Your task to perform on an android device: open chrome and create a bookmark for the current page Image 0: 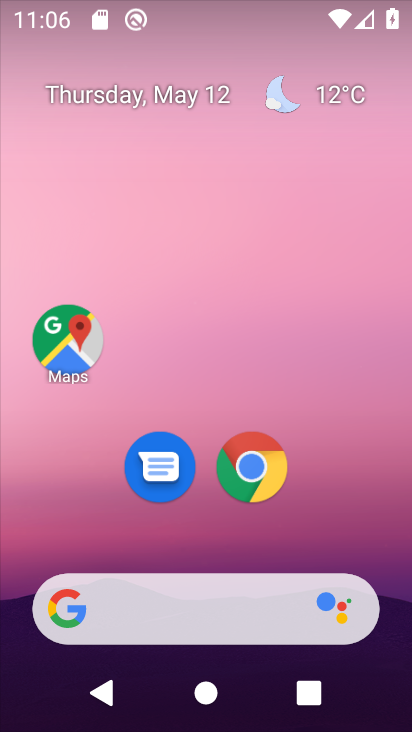
Step 0: click (257, 466)
Your task to perform on an android device: open chrome and create a bookmark for the current page Image 1: 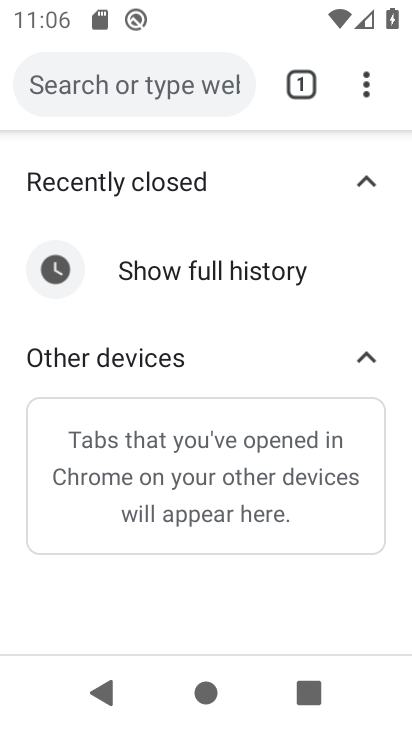
Step 1: click (356, 88)
Your task to perform on an android device: open chrome and create a bookmark for the current page Image 2: 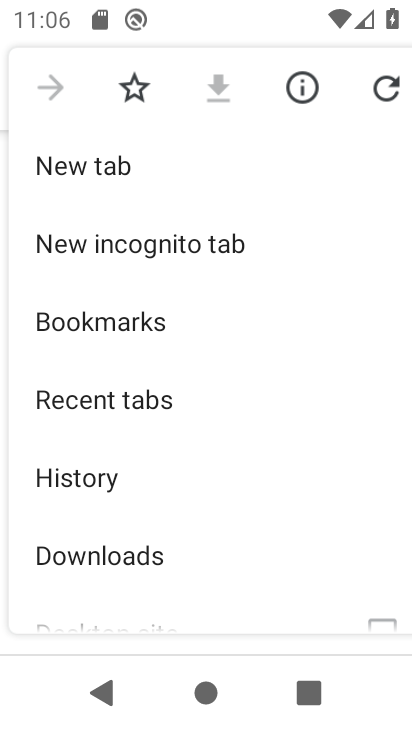
Step 2: click (135, 91)
Your task to perform on an android device: open chrome and create a bookmark for the current page Image 3: 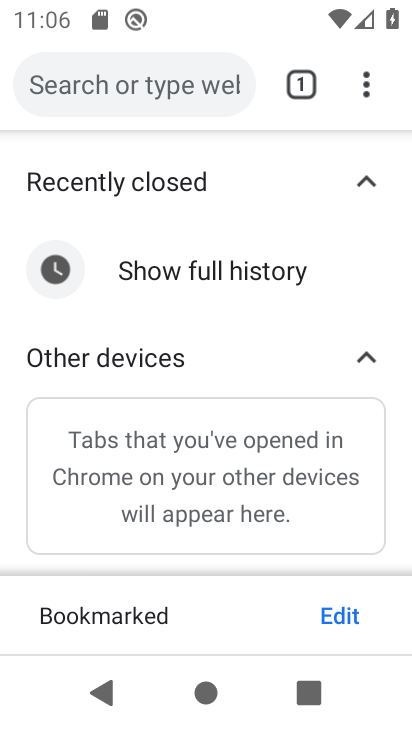
Step 3: task complete